Your task to perform on an android device: What's the weather? Image 0: 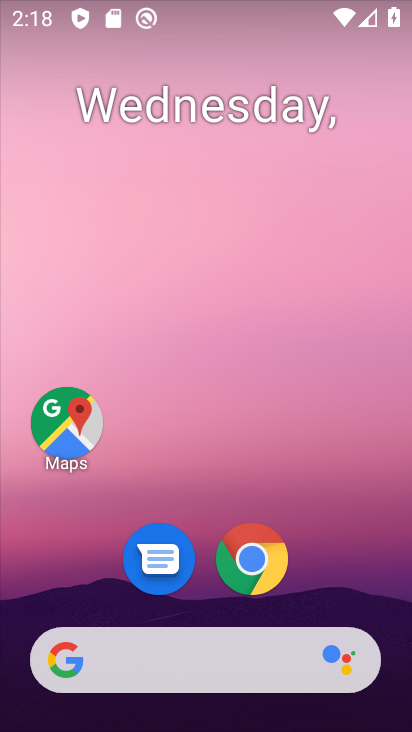
Step 0: click (231, 677)
Your task to perform on an android device: What's the weather? Image 1: 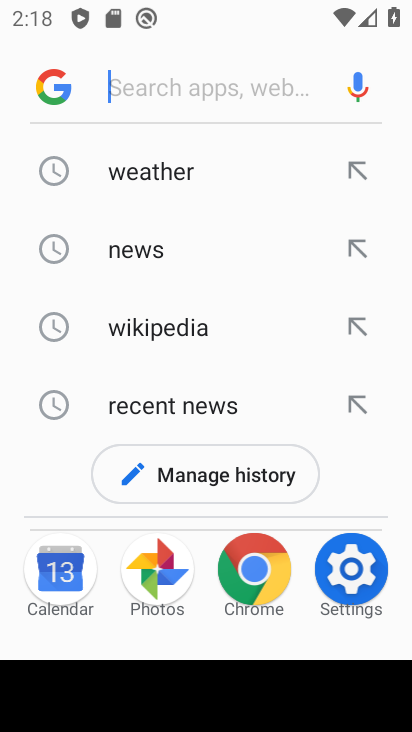
Step 1: click (174, 172)
Your task to perform on an android device: What's the weather? Image 2: 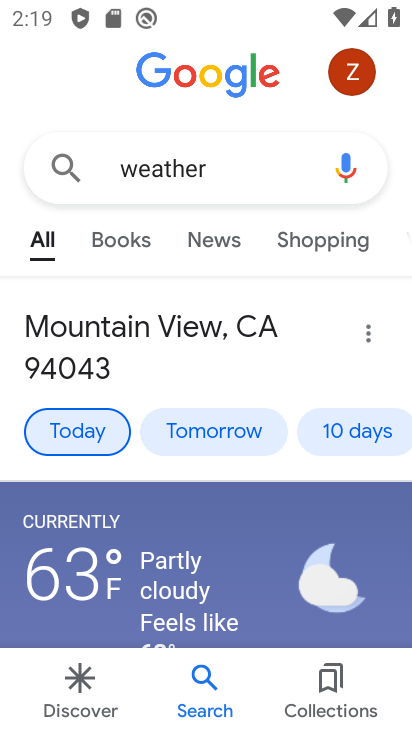
Step 2: task complete